Your task to perform on an android device: turn off wifi Image 0: 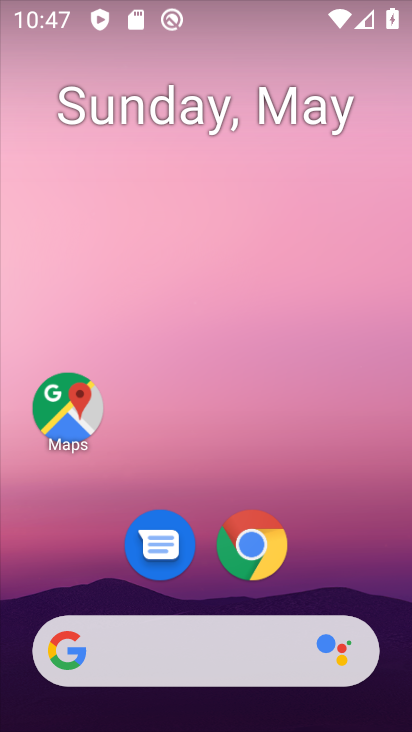
Step 0: drag from (377, 611) to (320, 61)
Your task to perform on an android device: turn off wifi Image 1: 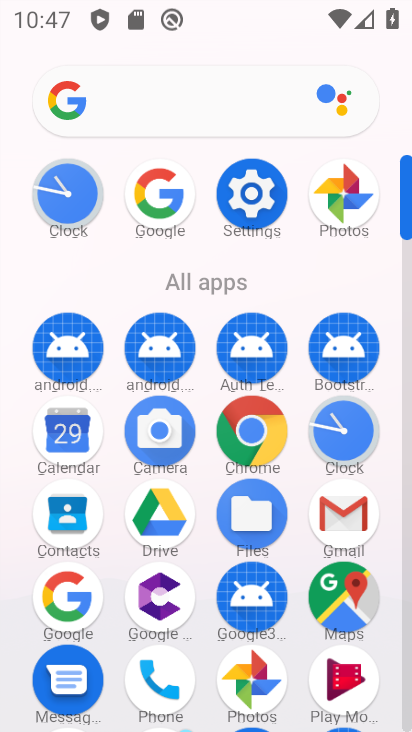
Step 1: drag from (220, 1) to (263, 496)
Your task to perform on an android device: turn off wifi Image 2: 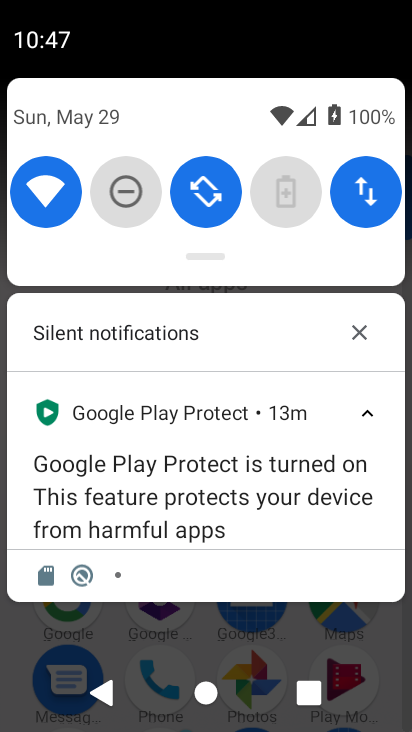
Step 2: click (52, 176)
Your task to perform on an android device: turn off wifi Image 3: 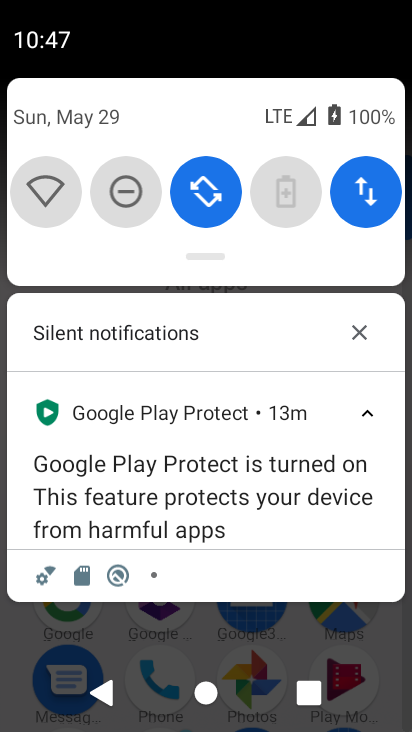
Step 3: task complete